Your task to perform on an android device: turn on location history Image 0: 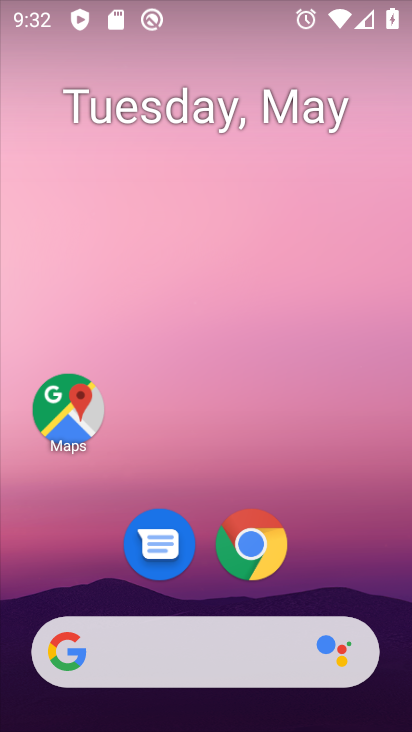
Step 0: drag from (327, 547) to (328, 243)
Your task to perform on an android device: turn on location history Image 1: 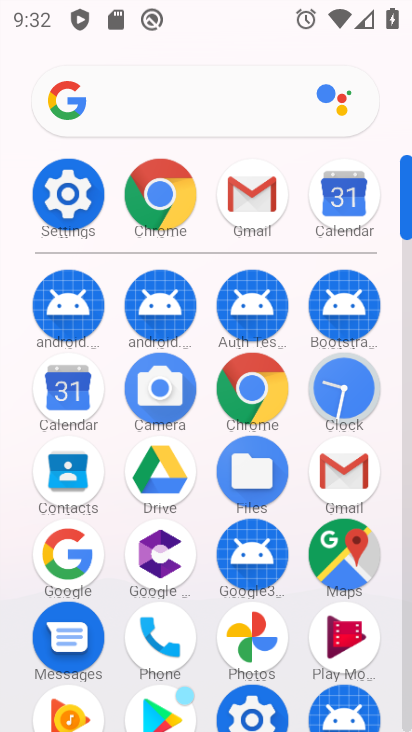
Step 1: click (67, 200)
Your task to perform on an android device: turn on location history Image 2: 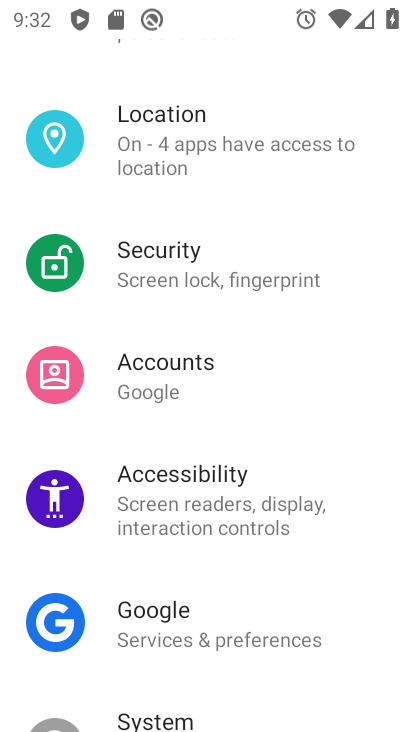
Step 2: click (210, 132)
Your task to perform on an android device: turn on location history Image 3: 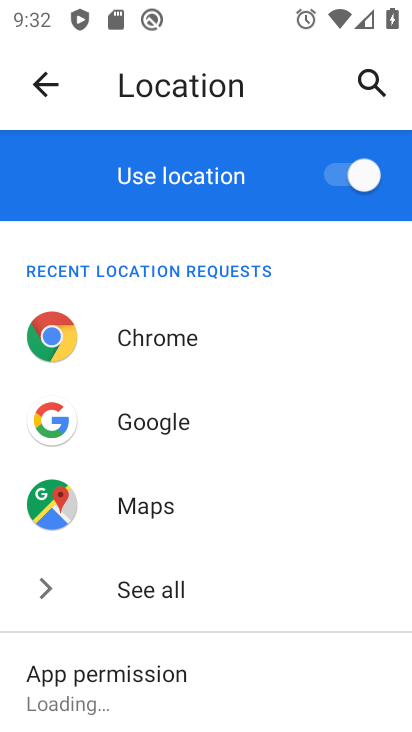
Step 3: drag from (244, 602) to (270, 335)
Your task to perform on an android device: turn on location history Image 4: 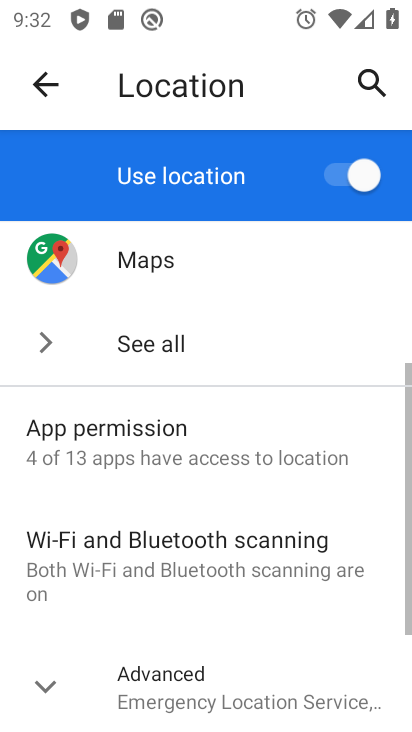
Step 4: drag from (303, 601) to (318, 360)
Your task to perform on an android device: turn on location history Image 5: 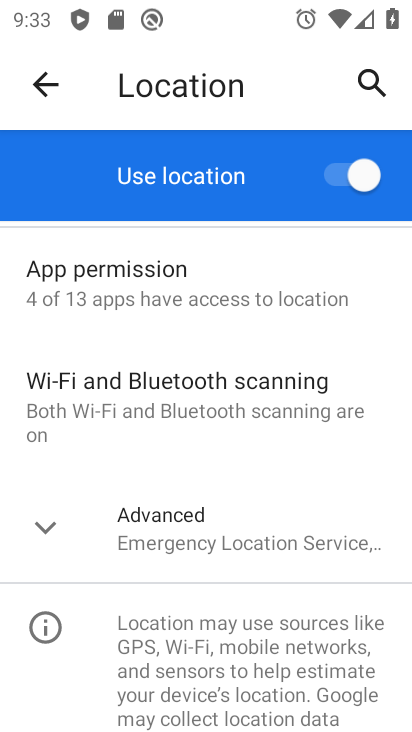
Step 5: click (278, 517)
Your task to perform on an android device: turn on location history Image 6: 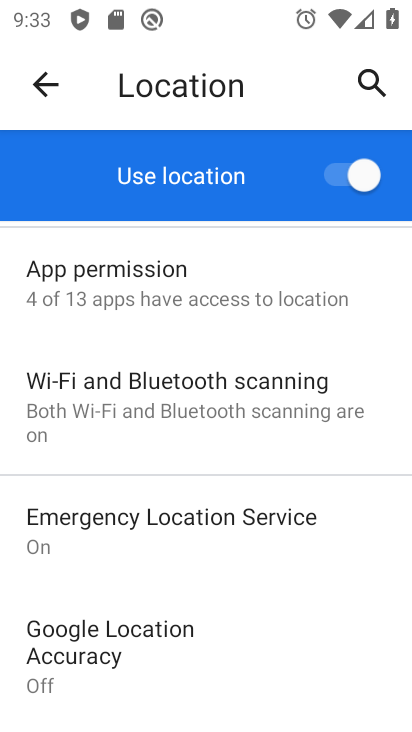
Step 6: drag from (232, 661) to (232, 387)
Your task to perform on an android device: turn on location history Image 7: 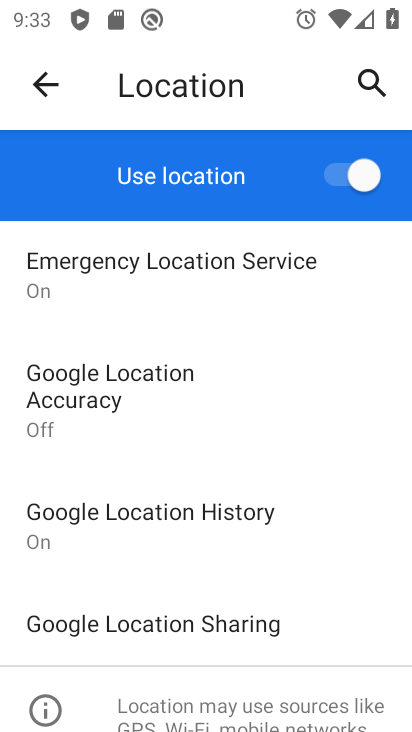
Step 7: click (207, 501)
Your task to perform on an android device: turn on location history Image 8: 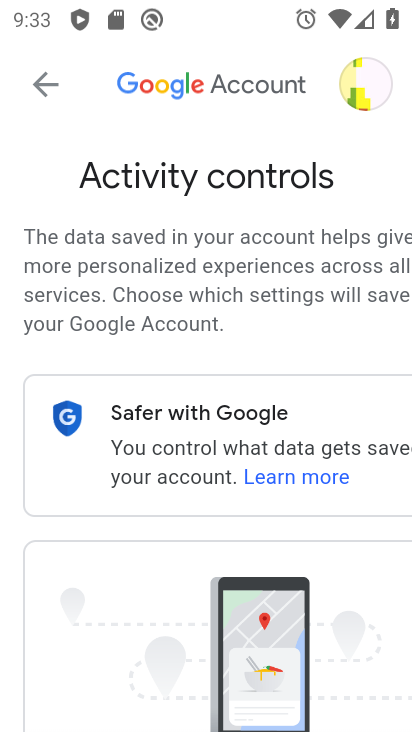
Step 8: task complete